Your task to perform on an android device: turn pop-ups off in chrome Image 0: 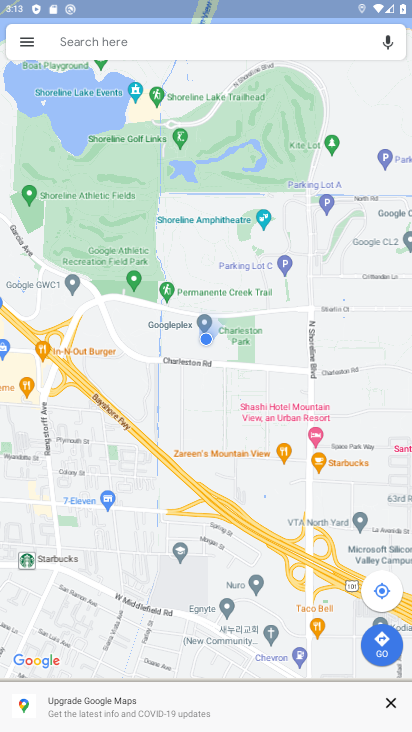
Step 0: press home button
Your task to perform on an android device: turn pop-ups off in chrome Image 1: 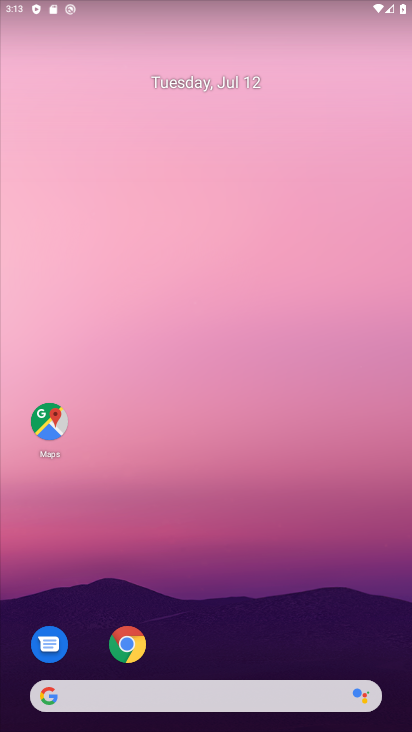
Step 1: click (126, 643)
Your task to perform on an android device: turn pop-ups off in chrome Image 2: 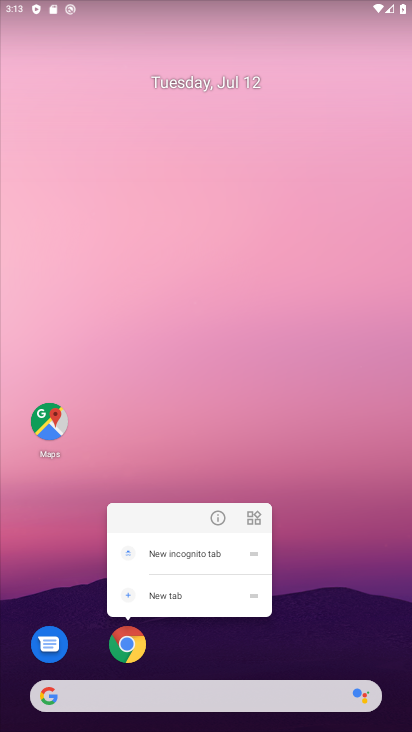
Step 2: click (126, 641)
Your task to perform on an android device: turn pop-ups off in chrome Image 3: 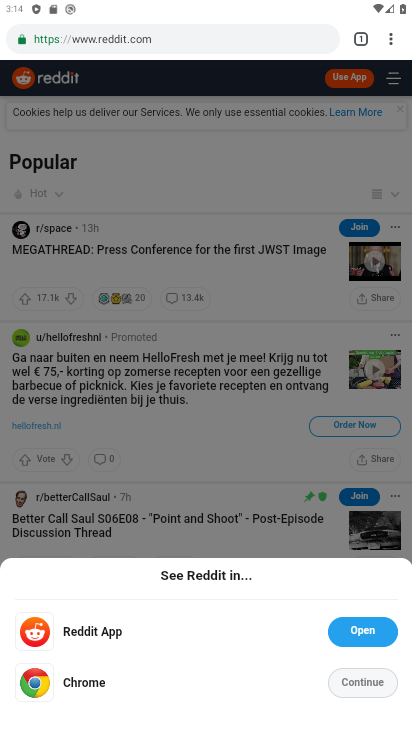
Step 3: drag from (387, 36) to (258, 478)
Your task to perform on an android device: turn pop-ups off in chrome Image 4: 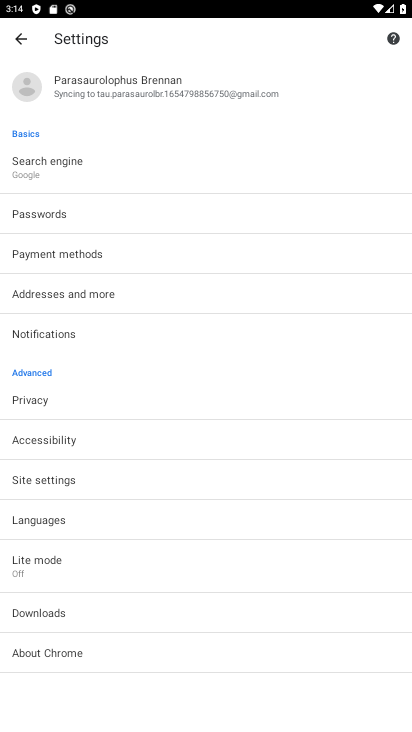
Step 4: click (38, 472)
Your task to perform on an android device: turn pop-ups off in chrome Image 5: 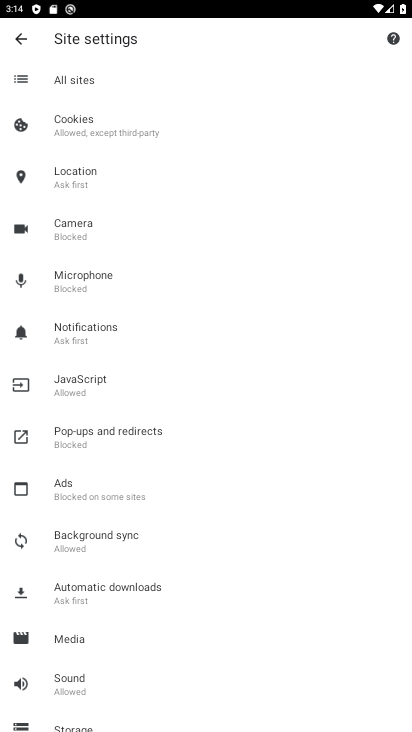
Step 5: click (117, 440)
Your task to perform on an android device: turn pop-ups off in chrome Image 6: 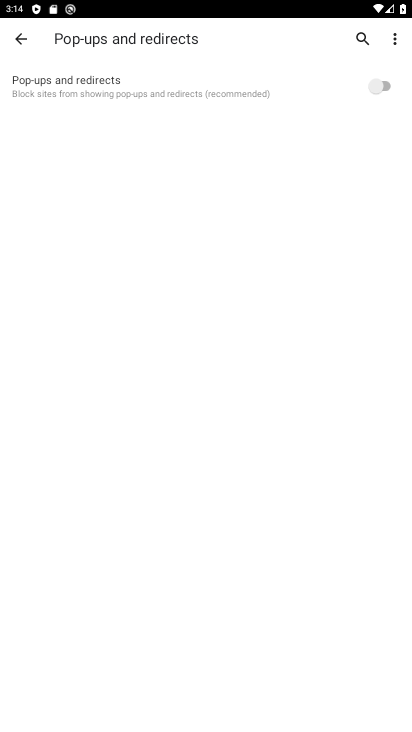
Step 6: task complete